Your task to perform on an android device: Go to display settings Image 0: 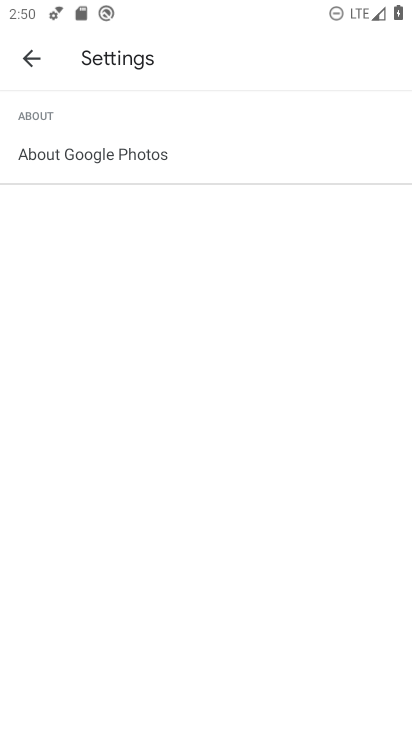
Step 0: press home button
Your task to perform on an android device: Go to display settings Image 1: 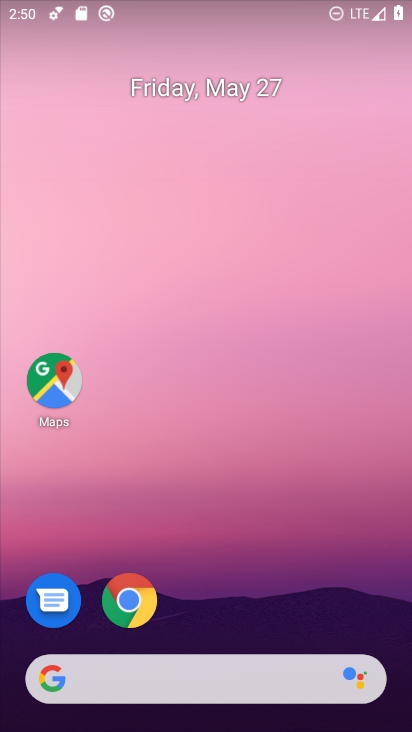
Step 1: drag from (229, 726) to (224, 153)
Your task to perform on an android device: Go to display settings Image 2: 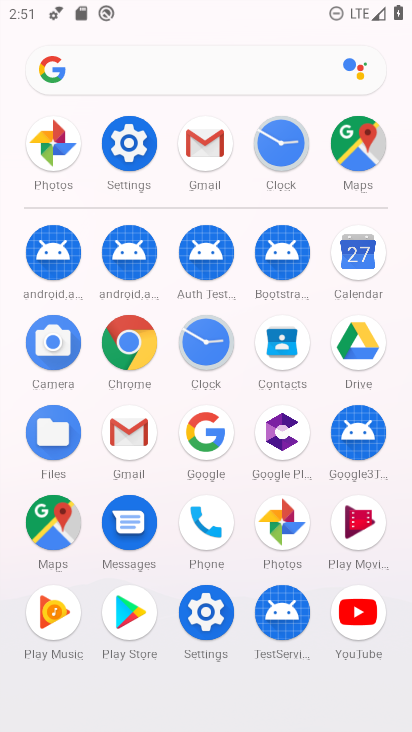
Step 2: click (134, 145)
Your task to perform on an android device: Go to display settings Image 3: 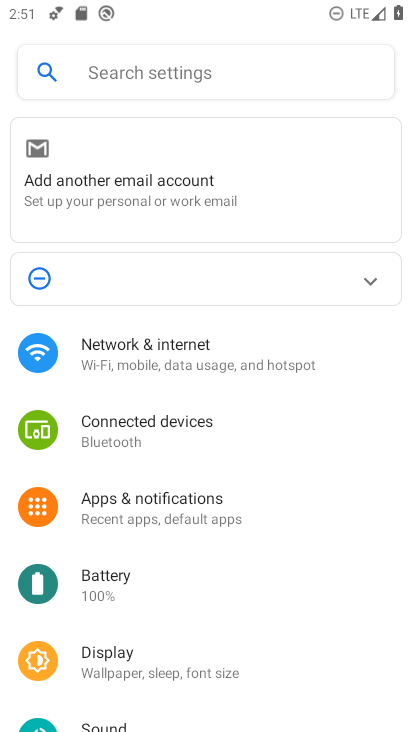
Step 3: click (132, 655)
Your task to perform on an android device: Go to display settings Image 4: 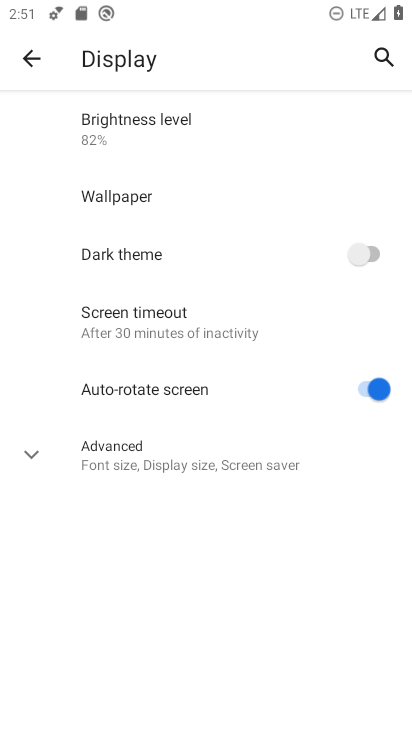
Step 4: task complete